Your task to perform on an android device: turn on showing notifications on the lock screen Image 0: 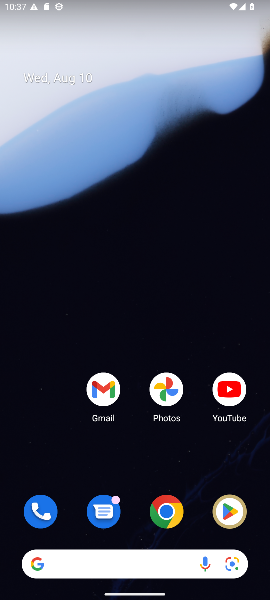
Step 0: drag from (141, 533) to (153, 108)
Your task to perform on an android device: turn on showing notifications on the lock screen Image 1: 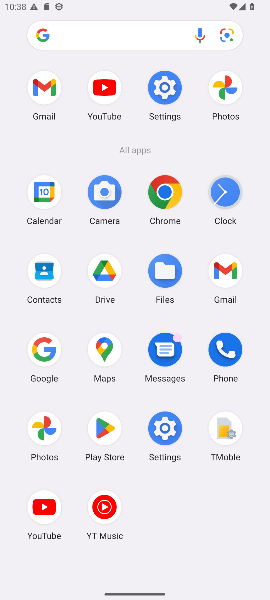
Step 1: click (172, 421)
Your task to perform on an android device: turn on showing notifications on the lock screen Image 2: 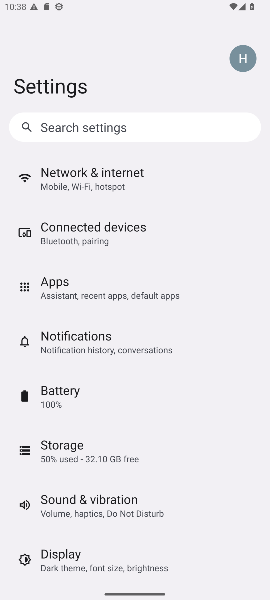
Step 2: click (91, 341)
Your task to perform on an android device: turn on showing notifications on the lock screen Image 3: 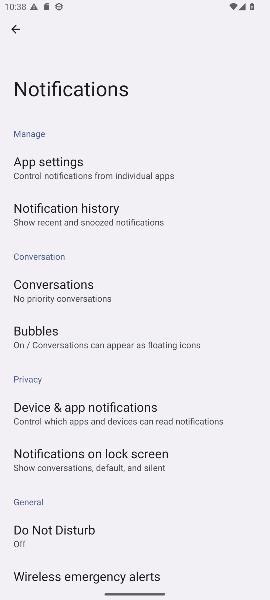
Step 3: click (126, 463)
Your task to perform on an android device: turn on showing notifications on the lock screen Image 4: 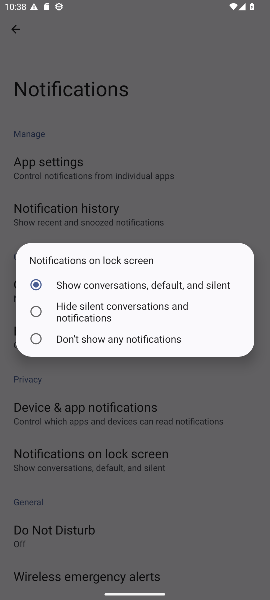
Step 4: task complete